Your task to perform on an android device: Go to Google maps Image 0: 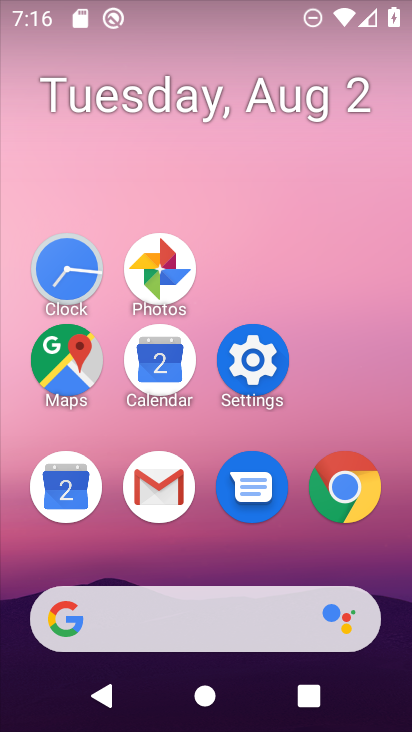
Step 0: click (67, 367)
Your task to perform on an android device: Go to Google maps Image 1: 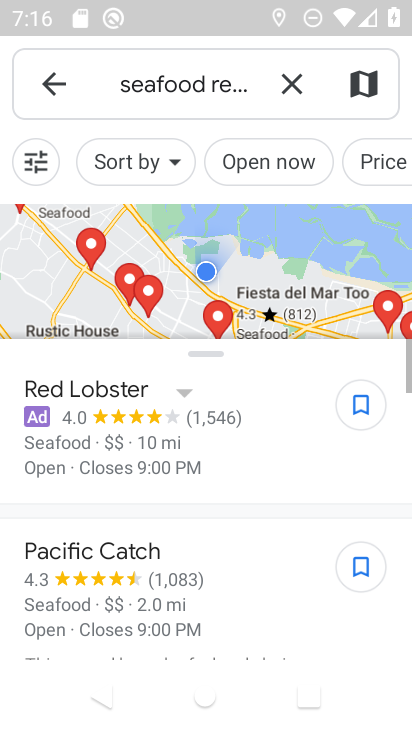
Step 1: click (54, 73)
Your task to perform on an android device: Go to Google maps Image 2: 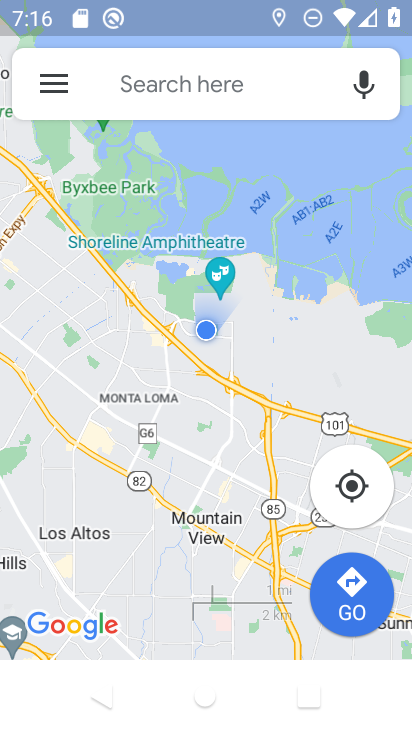
Step 2: task complete